Your task to perform on an android device: find snoozed emails in the gmail app Image 0: 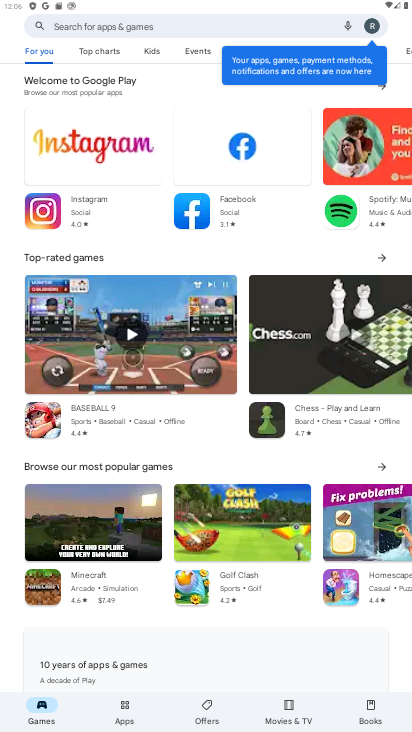
Step 0: press home button
Your task to perform on an android device: find snoozed emails in the gmail app Image 1: 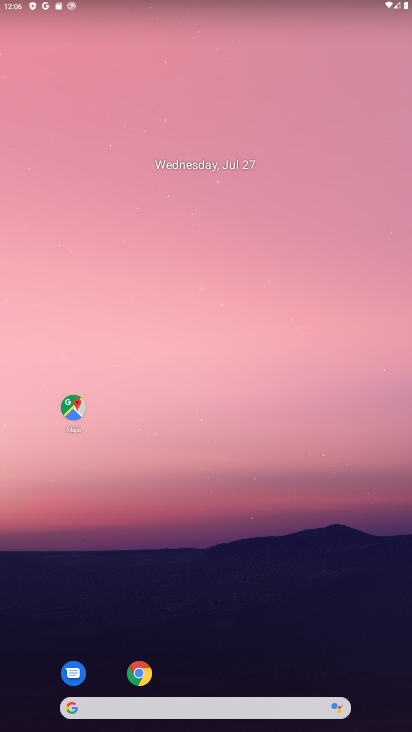
Step 1: drag from (219, 651) to (205, 49)
Your task to perform on an android device: find snoozed emails in the gmail app Image 2: 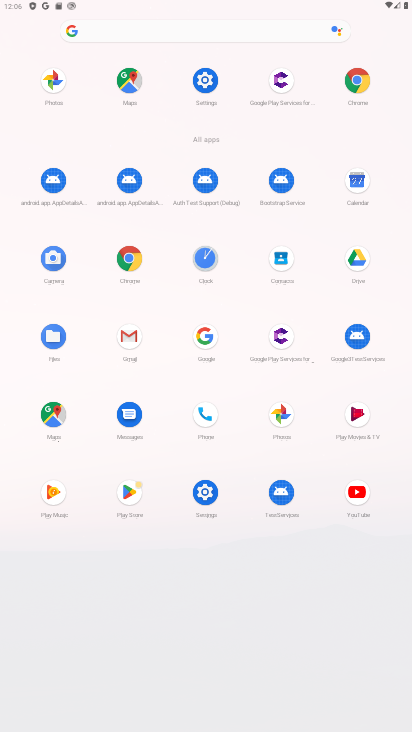
Step 2: click (130, 338)
Your task to perform on an android device: find snoozed emails in the gmail app Image 3: 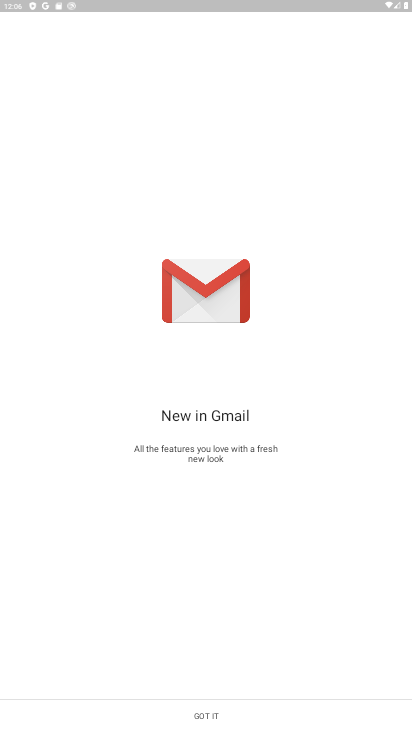
Step 3: click (197, 727)
Your task to perform on an android device: find snoozed emails in the gmail app Image 4: 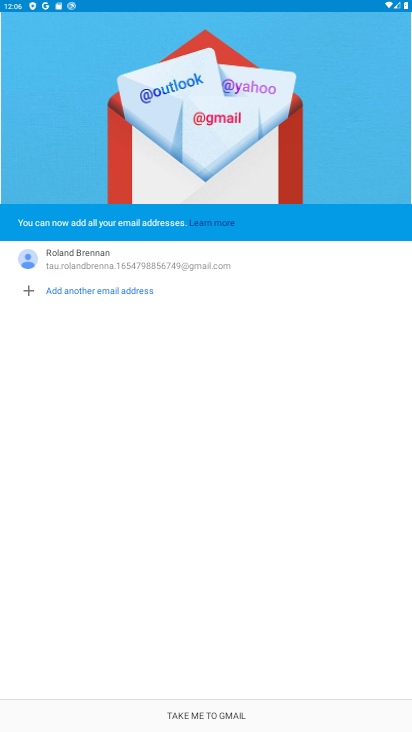
Step 4: click (197, 719)
Your task to perform on an android device: find snoozed emails in the gmail app Image 5: 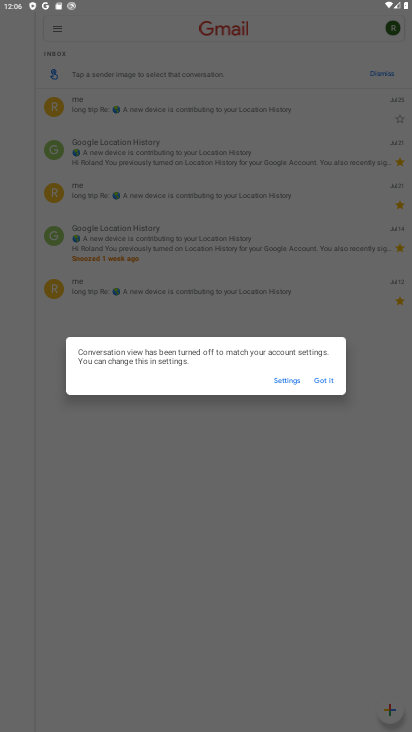
Step 5: click (328, 382)
Your task to perform on an android device: find snoozed emails in the gmail app Image 6: 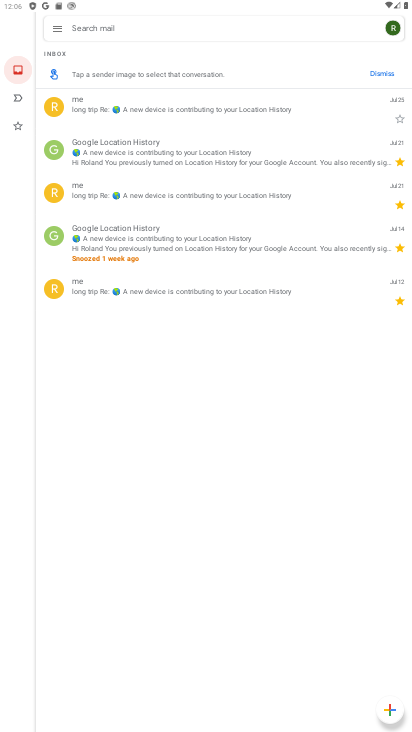
Step 6: click (58, 32)
Your task to perform on an android device: find snoozed emails in the gmail app Image 7: 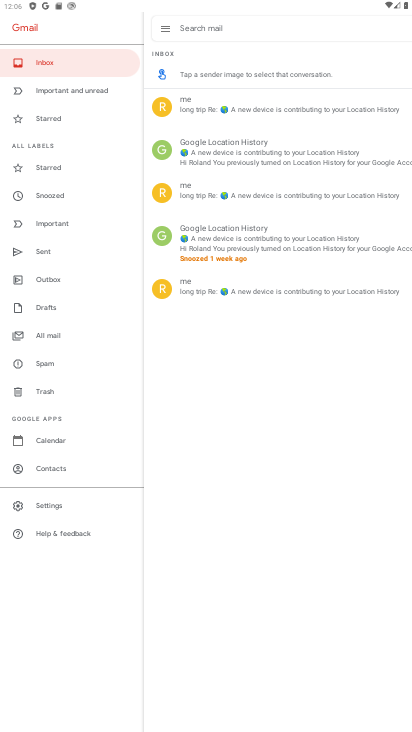
Step 7: click (57, 198)
Your task to perform on an android device: find snoozed emails in the gmail app Image 8: 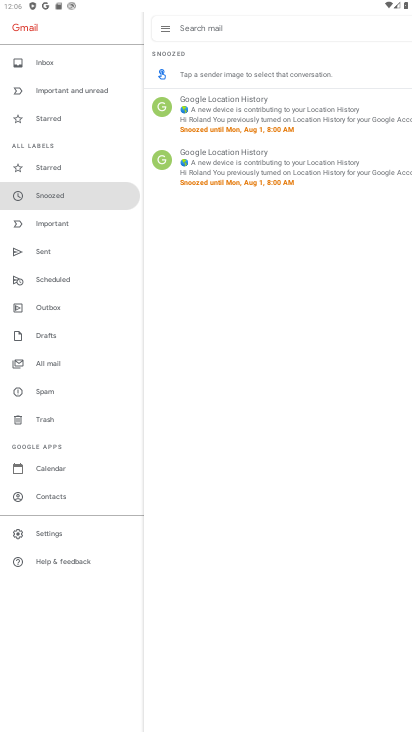
Step 8: task complete